Your task to perform on an android device: Open battery settings Image 0: 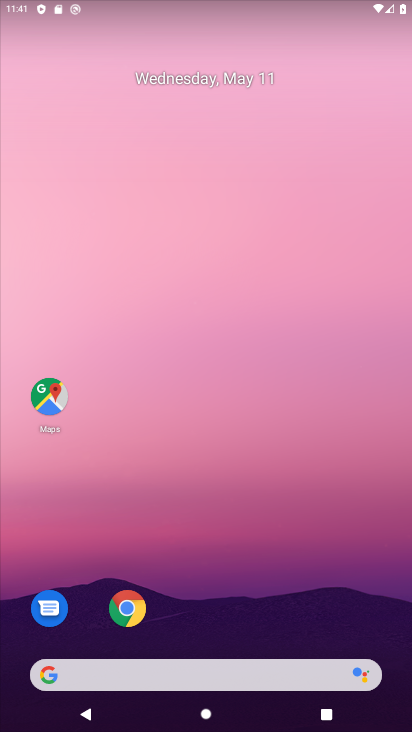
Step 0: drag from (345, 611) to (303, 3)
Your task to perform on an android device: Open battery settings Image 1: 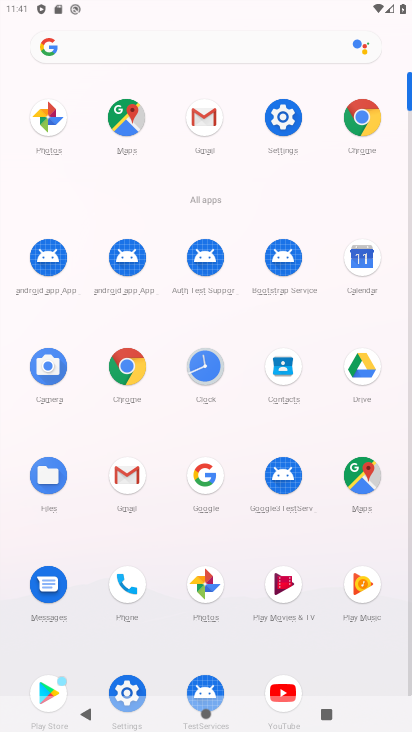
Step 1: click (292, 155)
Your task to perform on an android device: Open battery settings Image 2: 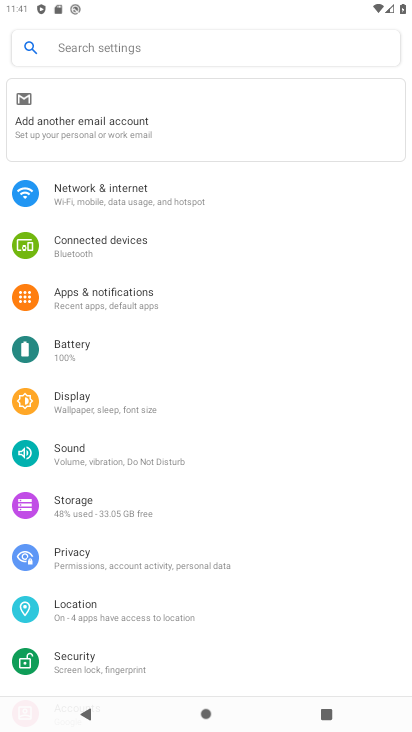
Step 2: click (62, 342)
Your task to perform on an android device: Open battery settings Image 3: 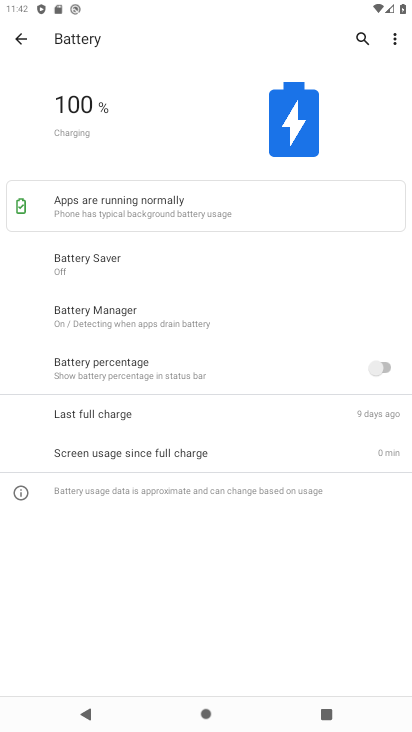
Step 3: task complete